Your task to perform on an android device: check data usage Image 0: 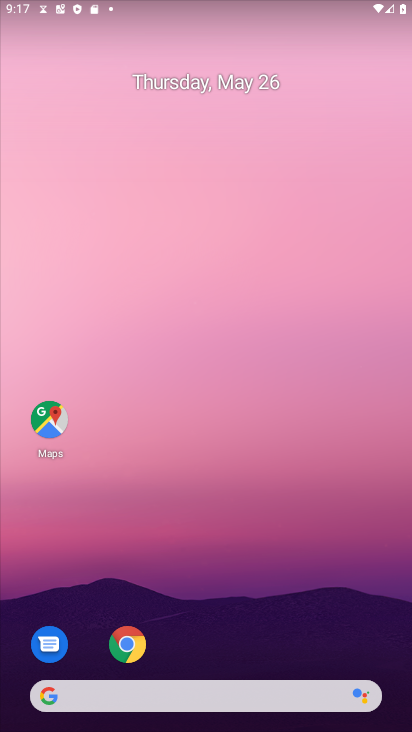
Step 0: drag from (236, 636) to (237, 12)
Your task to perform on an android device: check data usage Image 1: 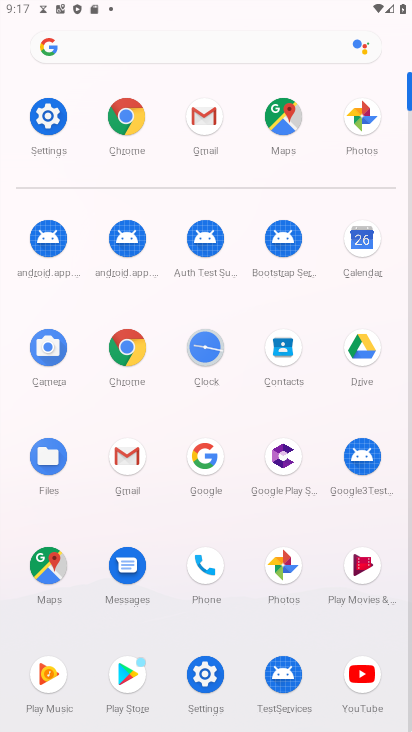
Step 1: click (34, 118)
Your task to perform on an android device: check data usage Image 2: 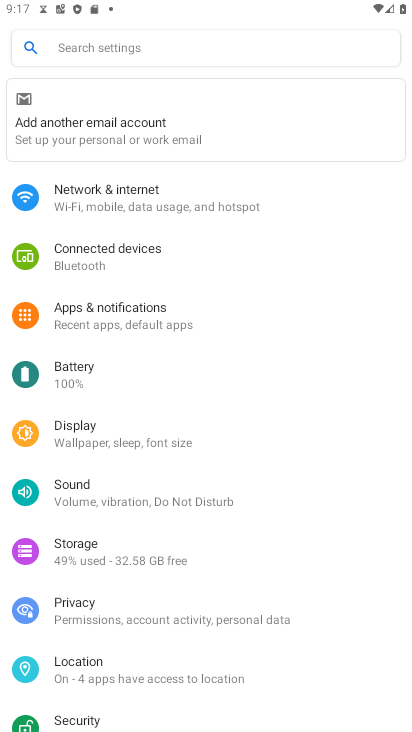
Step 2: click (172, 196)
Your task to perform on an android device: check data usage Image 3: 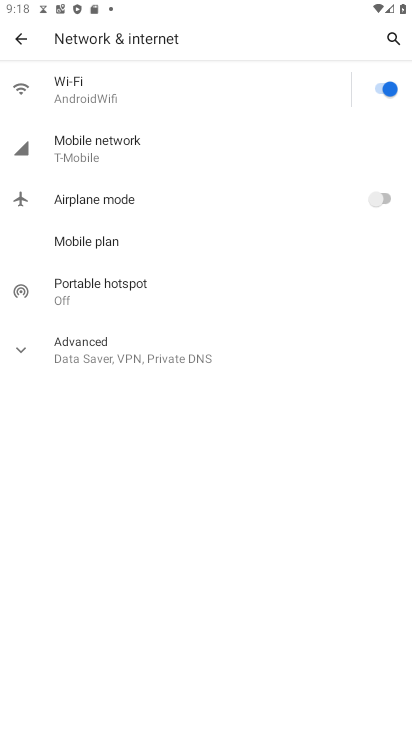
Step 3: click (104, 344)
Your task to perform on an android device: check data usage Image 4: 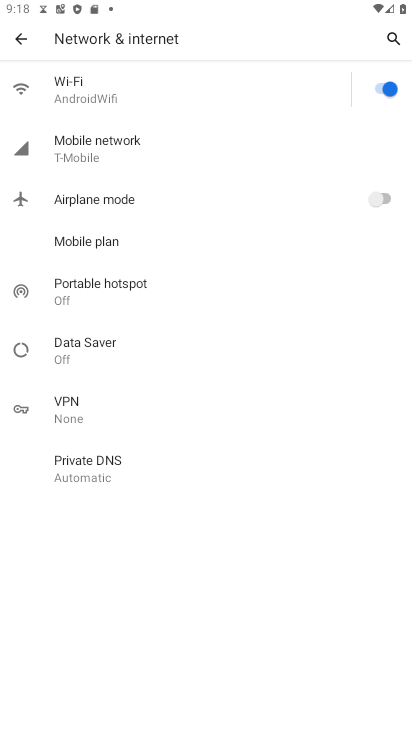
Step 4: click (123, 150)
Your task to perform on an android device: check data usage Image 5: 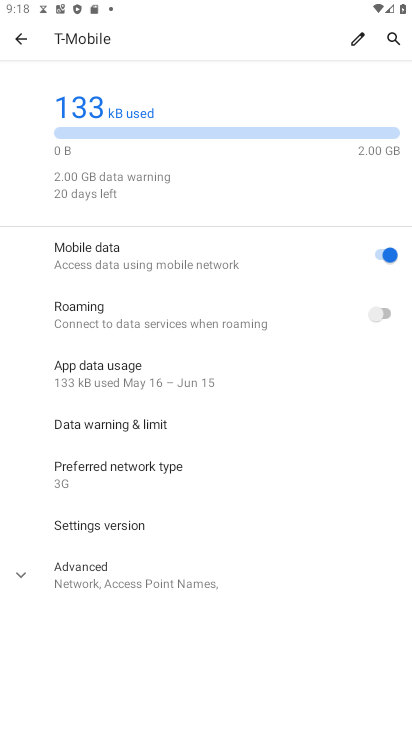
Step 5: click (128, 372)
Your task to perform on an android device: check data usage Image 6: 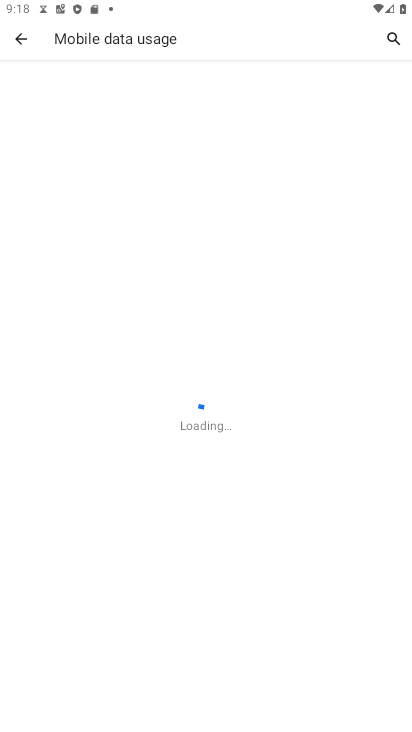
Step 6: task complete